Your task to perform on an android device: What is the news today? Image 0: 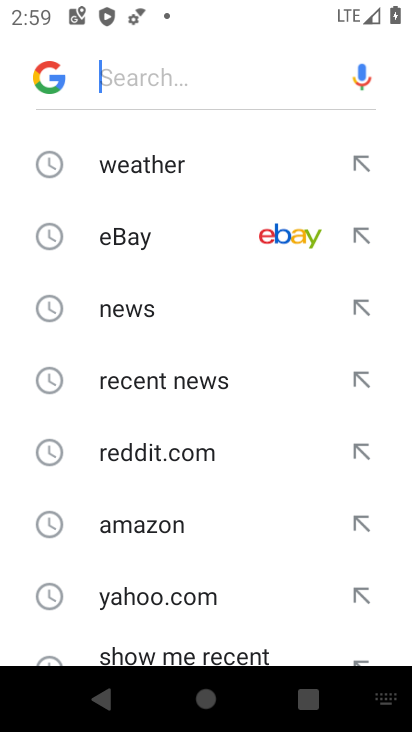
Step 0: click (142, 308)
Your task to perform on an android device: What is the news today? Image 1: 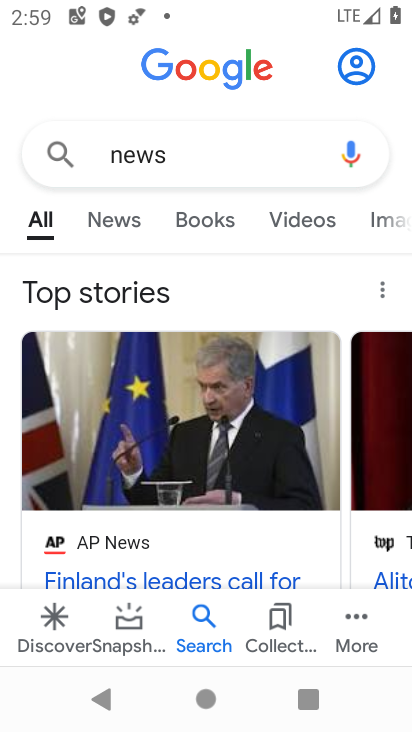
Step 1: task complete